Your task to perform on an android device: turn off airplane mode Image 0: 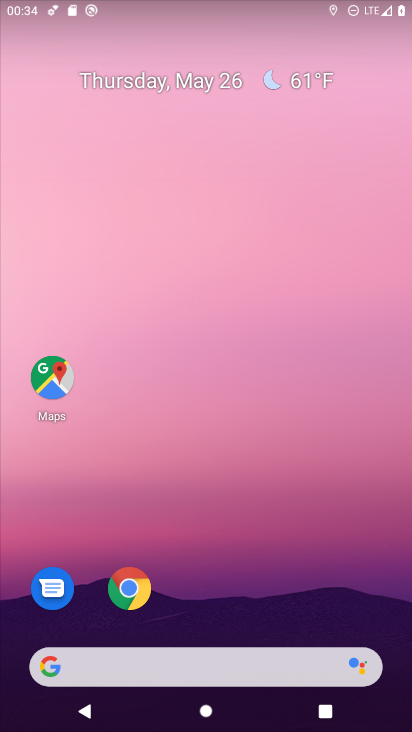
Step 0: drag from (228, 543) to (147, 229)
Your task to perform on an android device: turn off airplane mode Image 1: 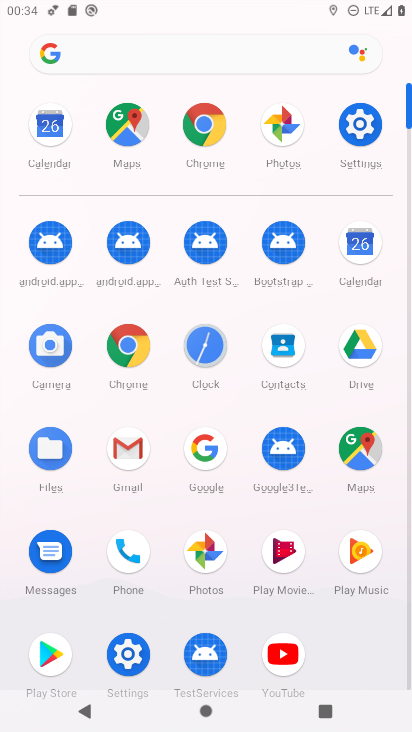
Step 1: click (348, 125)
Your task to perform on an android device: turn off airplane mode Image 2: 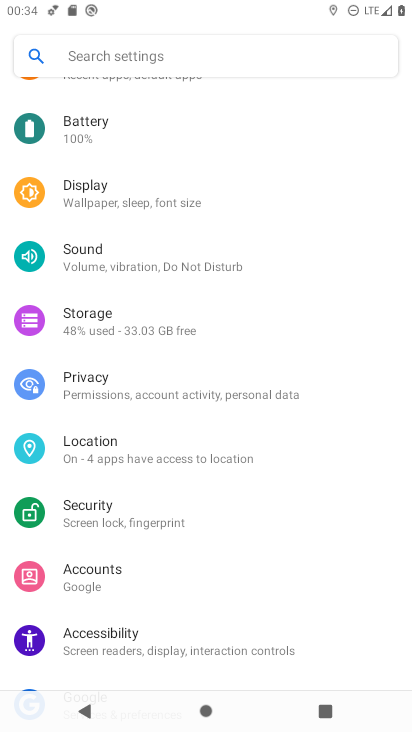
Step 2: drag from (213, 152) to (269, 627)
Your task to perform on an android device: turn off airplane mode Image 3: 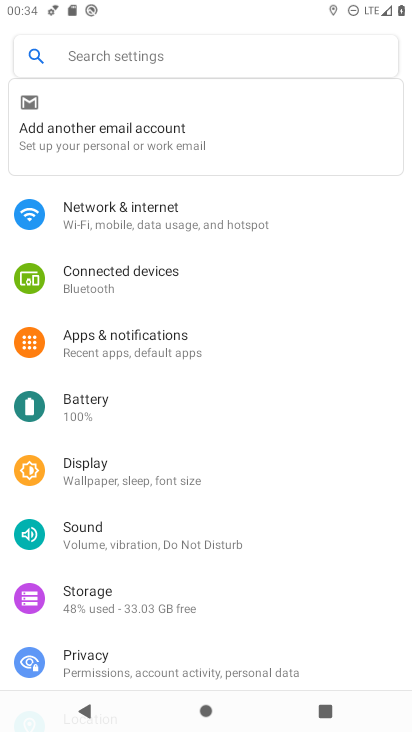
Step 3: click (124, 205)
Your task to perform on an android device: turn off airplane mode Image 4: 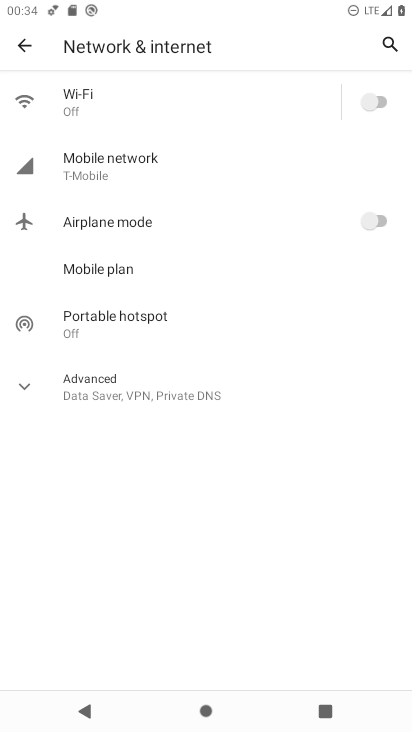
Step 4: task complete